Your task to perform on an android device: turn off translation in the chrome app Image 0: 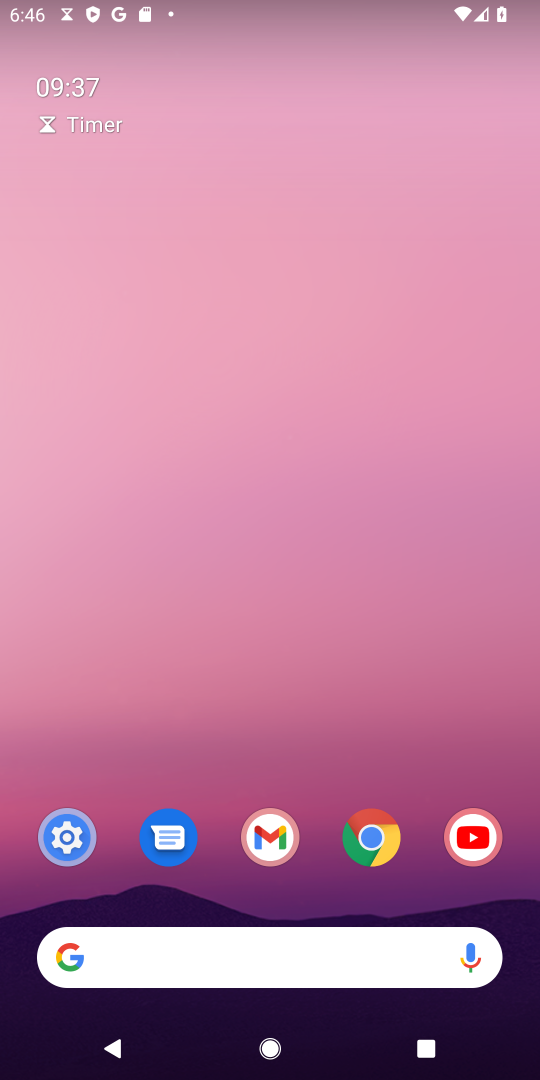
Step 0: press home button
Your task to perform on an android device: turn off translation in the chrome app Image 1: 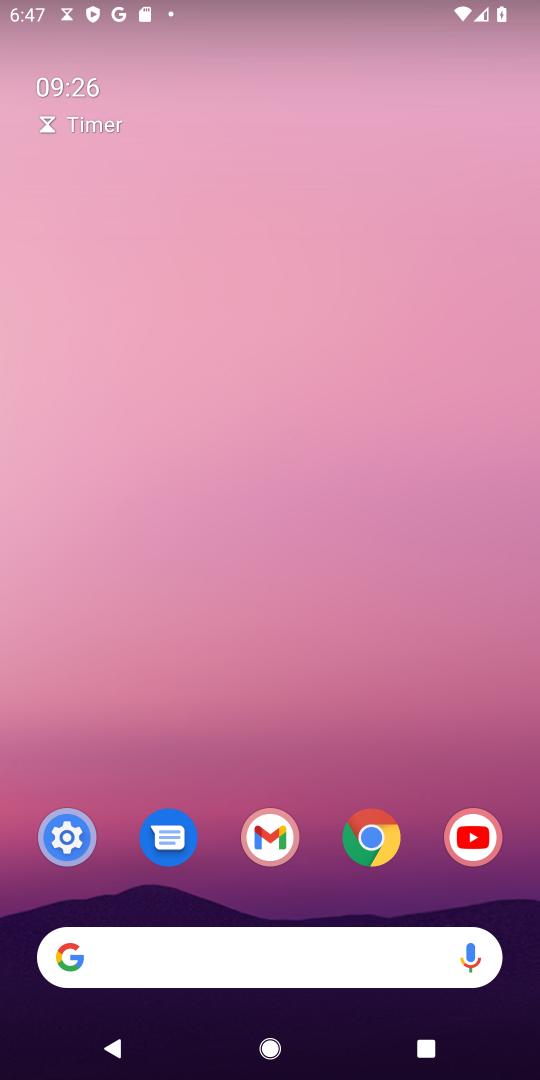
Step 1: click (368, 831)
Your task to perform on an android device: turn off translation in the chrome app Image 2: 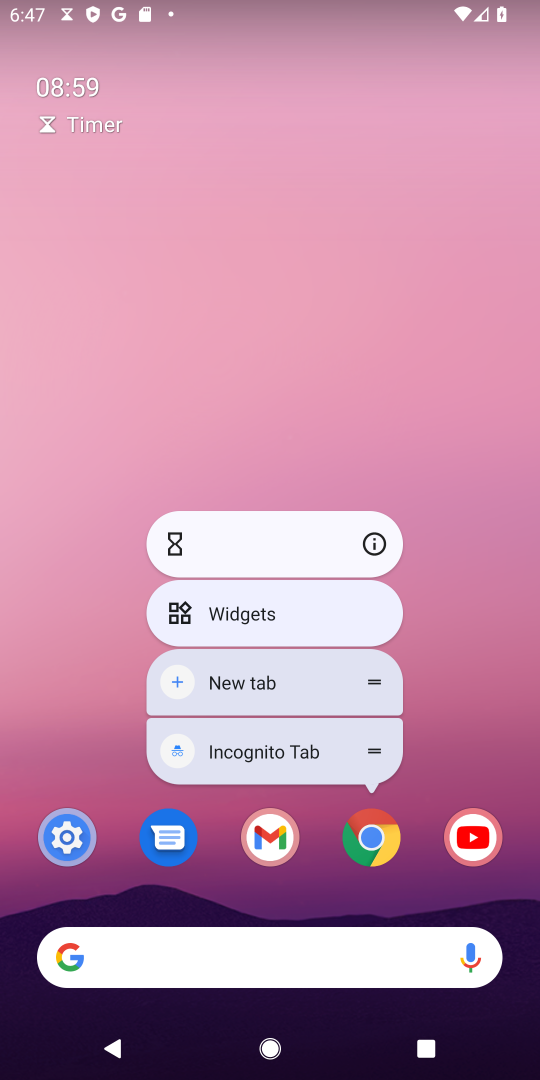
Step 2: click (365, 833)
Your task to perform on an android device: turn off translation in the chrome app Image 3: 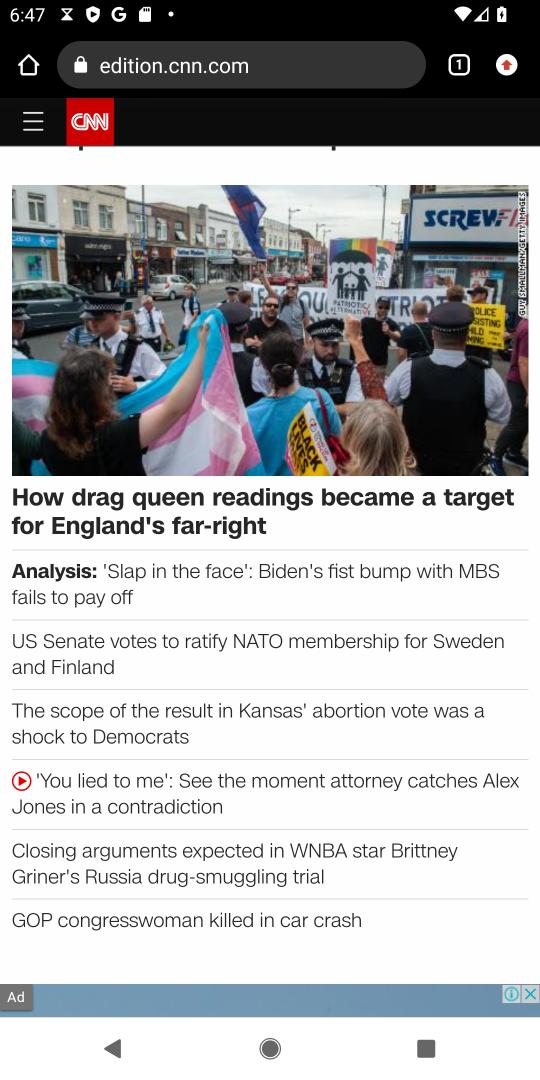
Step 3: click (512, 73)
Your task to perform on an android device: turn off translation in the chrome app Image 4: 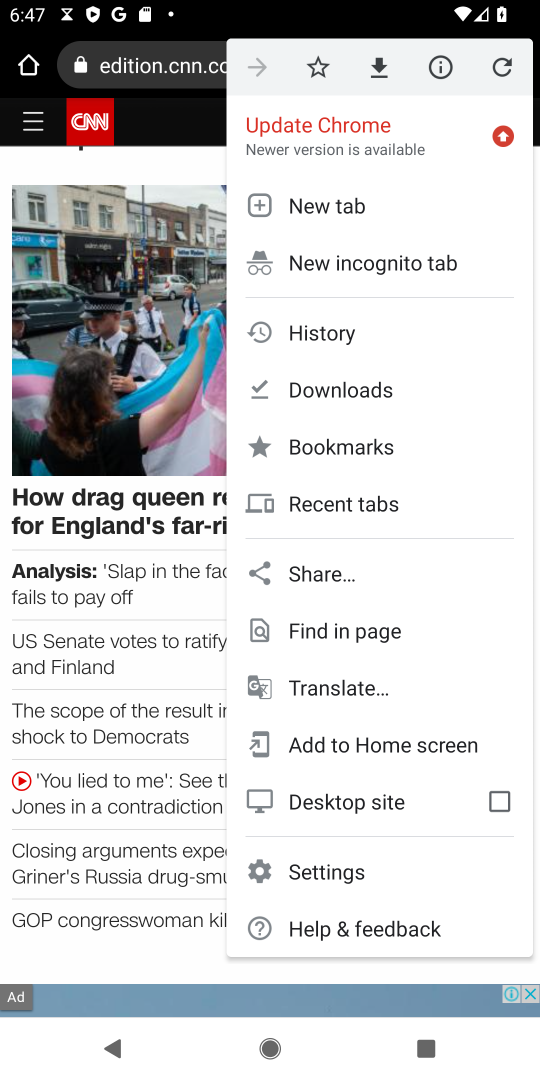
Step 4: click (376, 870)
Your task to perform on an android device: turn off translation in the chrome app Image 5: 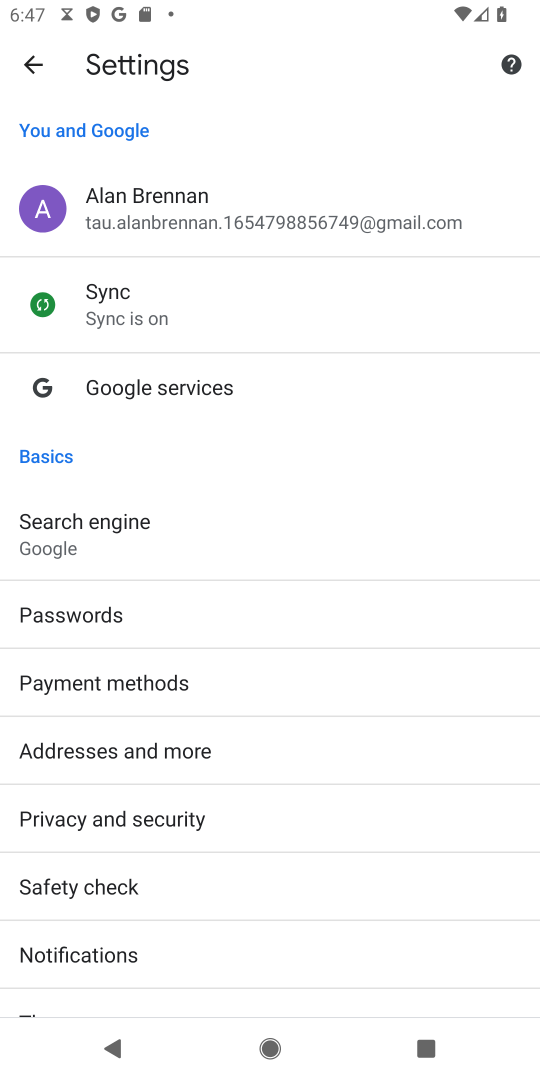
Step 5: drag from (254, 925) to (289, 213)
Your task to perform on an android device: turn off translation in the chrome app Image 6: 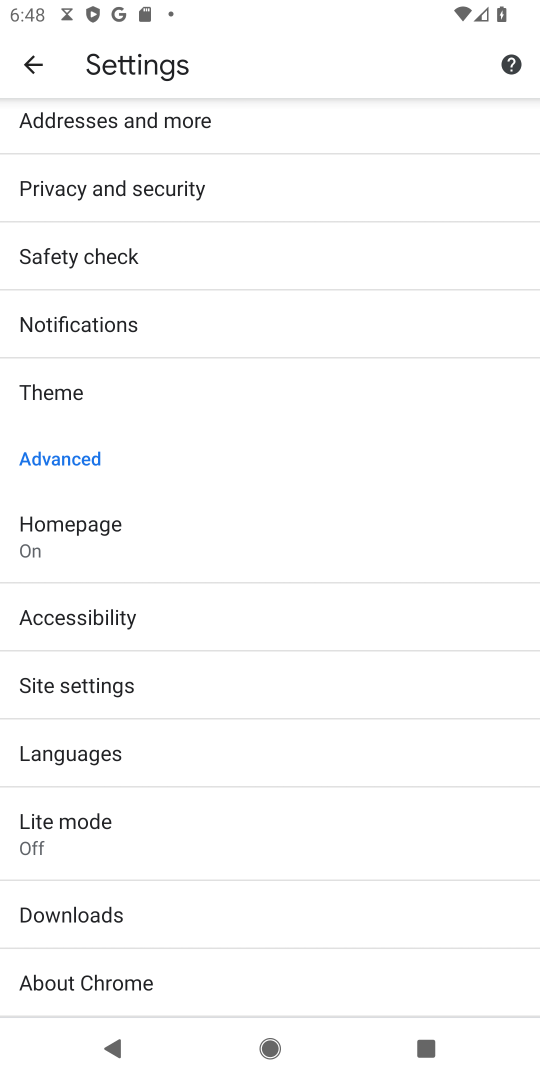
Step 6: click (153, 755)
Your task to perform on an android device: turn off translation in the chrome app Image 7: 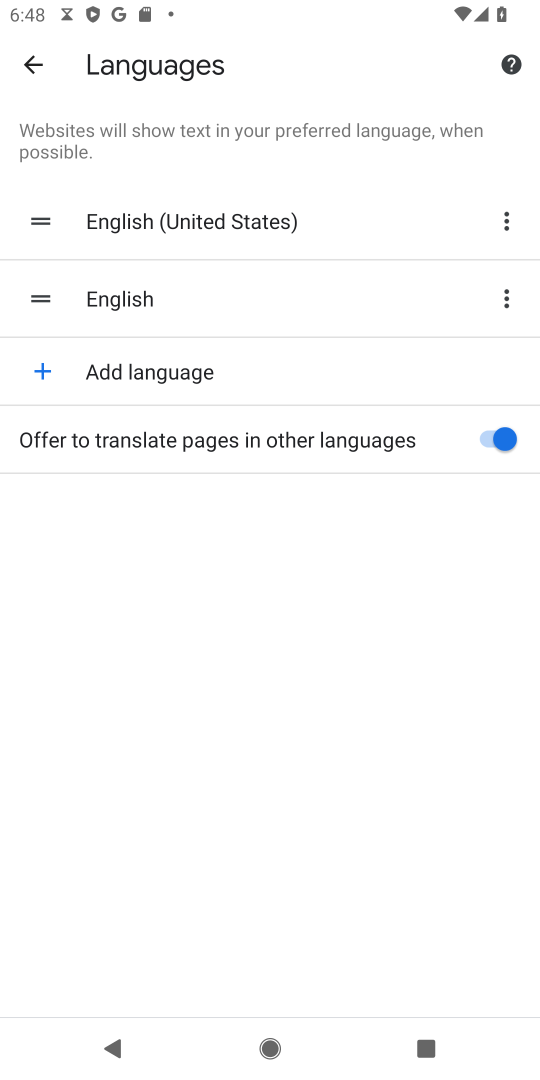
Step 7: click (492, 435)
Your task to perform on an android device: turn off translation in the chrome app Image 8: 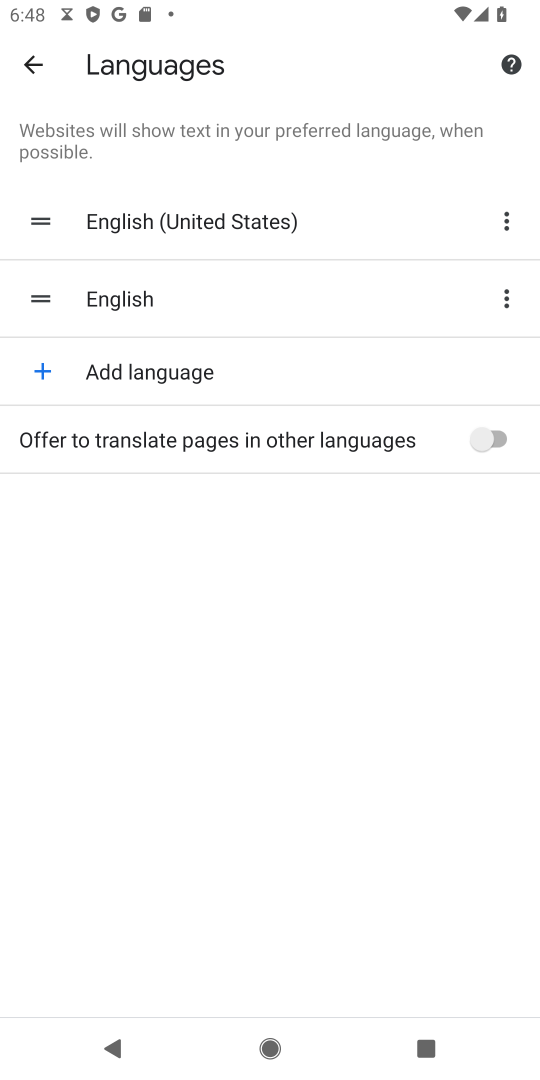
Step 8: task complete